Your task to perform on an android device: Show me popular videos on Youtube Image 0: 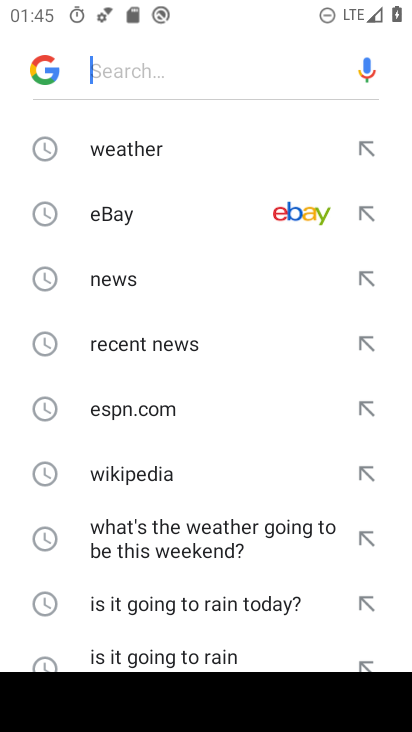
Step 0: press home button
Your task to perform on an android device: Show me popular videos on Youtube Image 1: 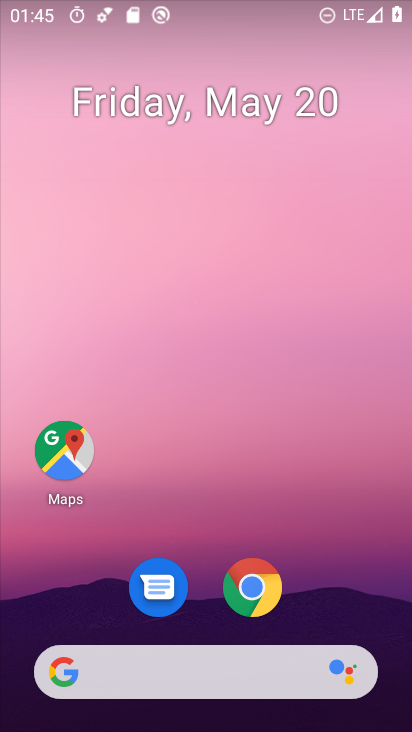
Step 1: drag from (374, 628) to (362, 271)
Your task to perform on an android device: Show me popular videos on Youtube Image 2: 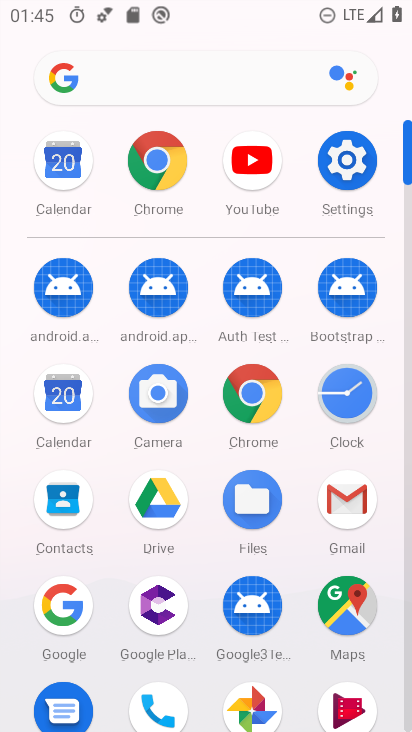
Step 2: click (257, 186)
Your task to perform on an android device: Show me popular videos on Youtube Image 3: 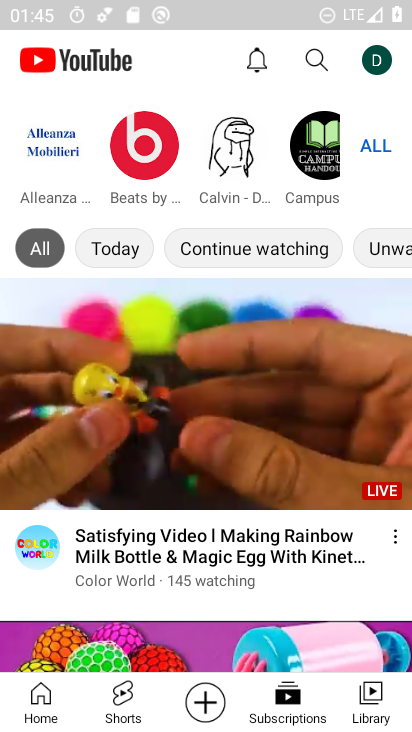
Step 3: click (43, 707)
Your task to perform on an android device: Show me popular videos on Youtube Image 4: 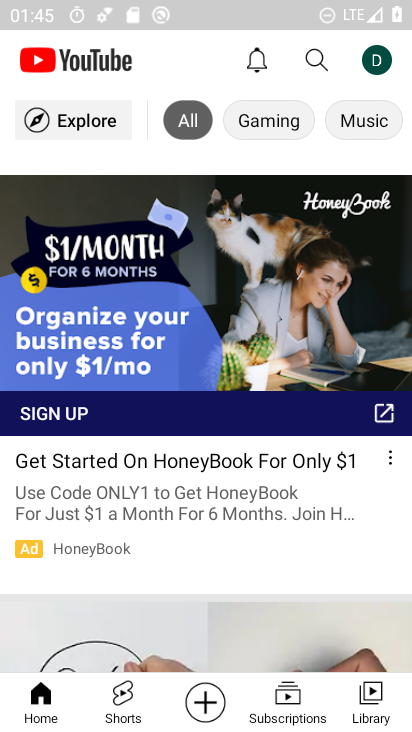
Step 4: task complete